Your task to perform on an android device: Is it going to rain this weekend? Image 0: 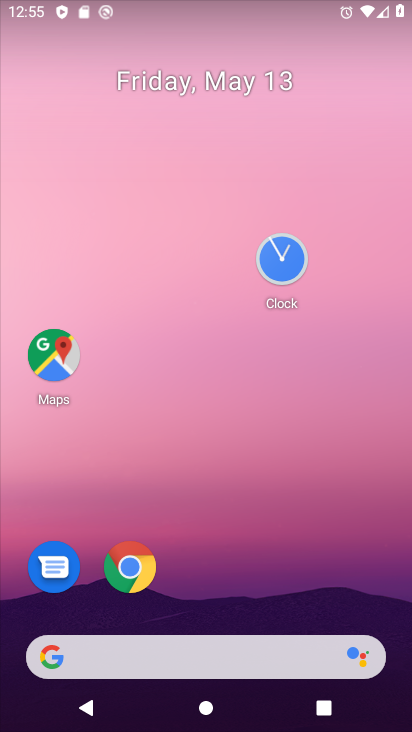
Step 0: drag from (284, 588) to (278, 553)
Your task to perform on an android device: Is it going to rain this weekend? Image 1: 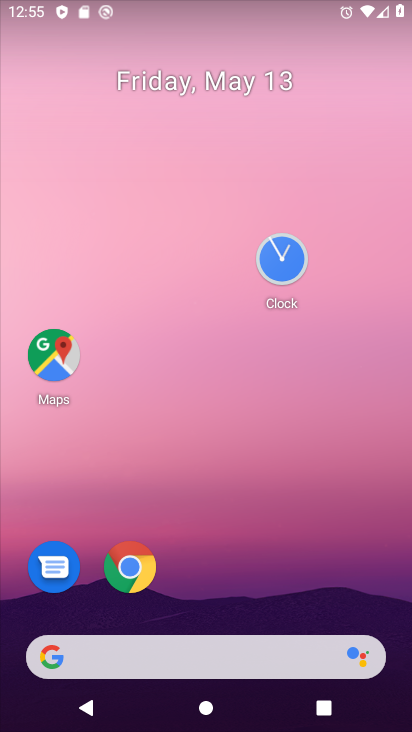
Step 1: click (252, 651)
Your task to perform on an android device: Is it going to rain this weekend? Image 2: 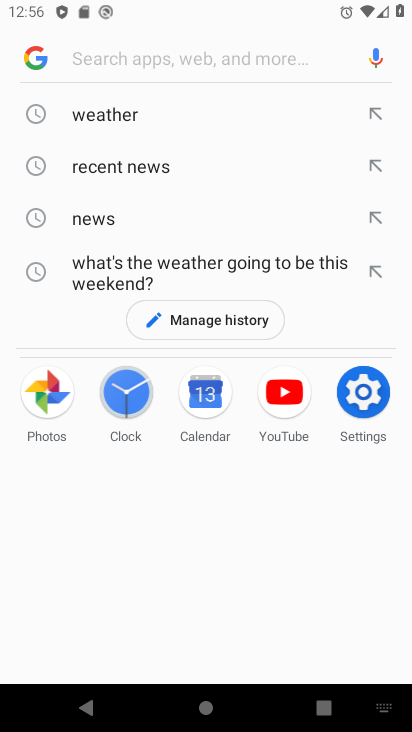
Step 2: click (185, 96)
Your task to perform on an android device: Is it going to rain this weekend? Image 3: 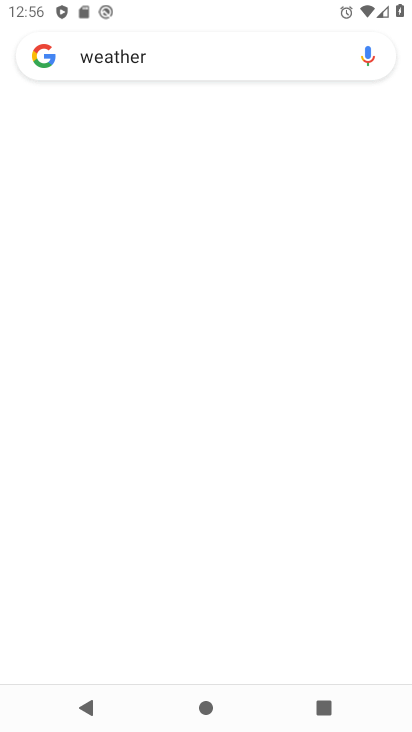
Step 3: task complete